Your task to perform on an android device: read, delete, or share a saved page in the chrome app Image 0: 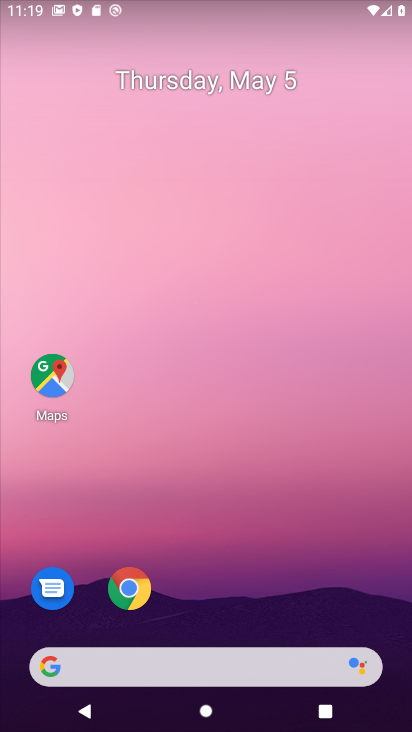
Step 0: drag from (149, 672) to (350, 158)
Your task to perform on an android device: read, delete, or share a saved page in the chrome app Image 1: 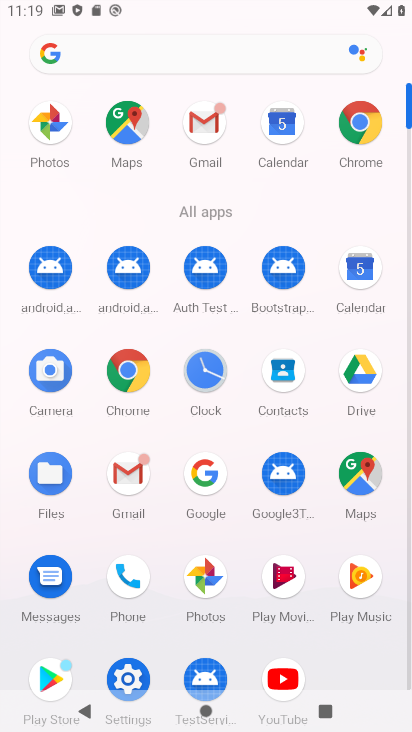
Step 1: click (361, 138)
Your task to perform on an android device: read, delete, or share a saved page in the chrome app Image 2: 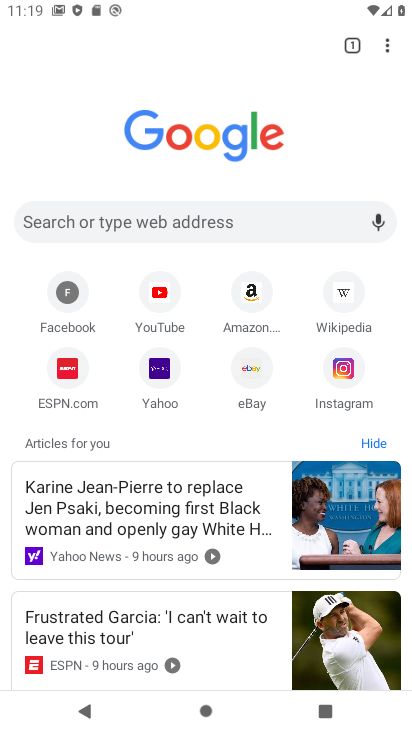
Step 2: drag from (386, 48) to (243, 304)
Your task to perform on an android device: read, delete, or share a saved page in the chrome app Image 3: 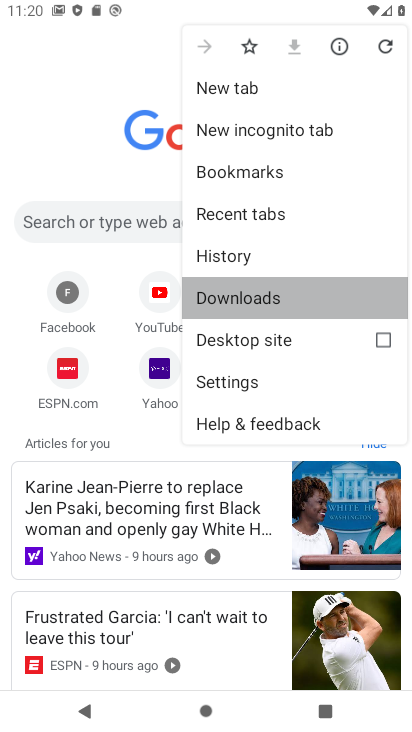
Step 3: click (243, 304)
Your task to perform on an android device: read, delete, or share a saved page in the chrome app Image 4: 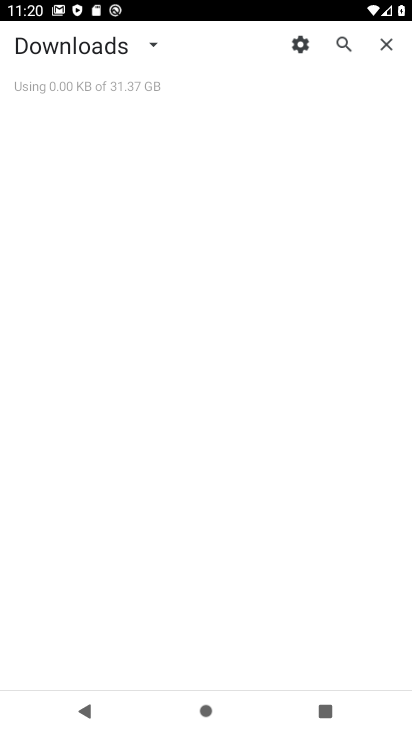
Step 4: click (131, 44)
Your task to perform on an android device: read, delete, or share a saved page in the chrome app Image 5: 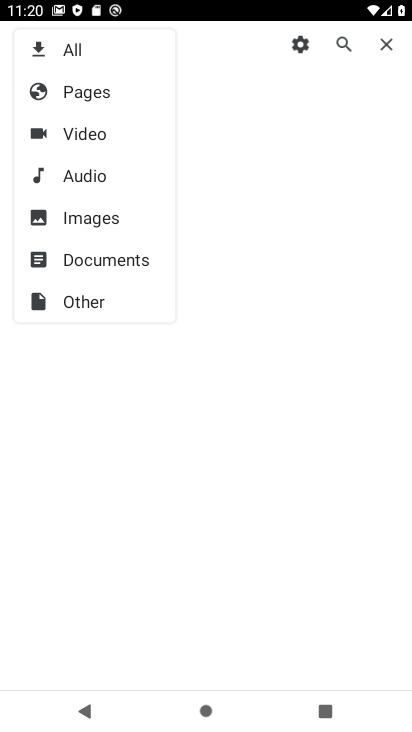
Step 5: click (103, 91)
Your task to perform on an android device: read, delete, or share a saved page in the chrome app Image 6: 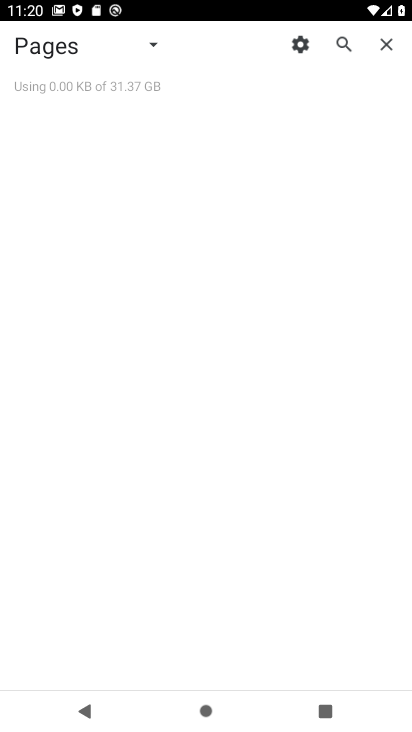
Step 6: task complete